Your task to perform on an android device: turn pop-ups off in chrome Image 0: 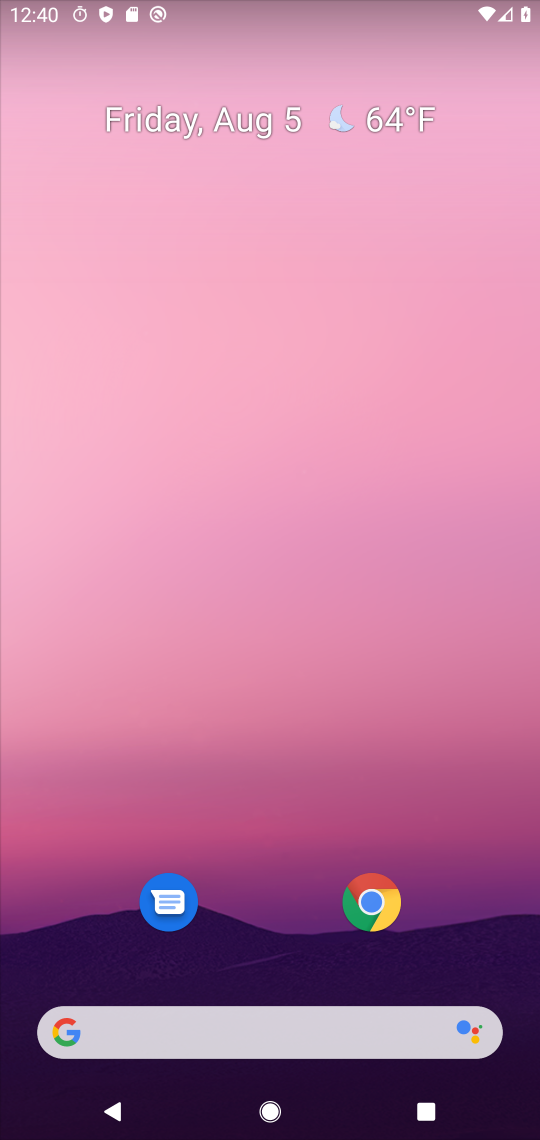
Step 0: drag from (381, 607) to (304, 294)
Your task to perform on an android device: turn pop-ups off in chrome Image 1: 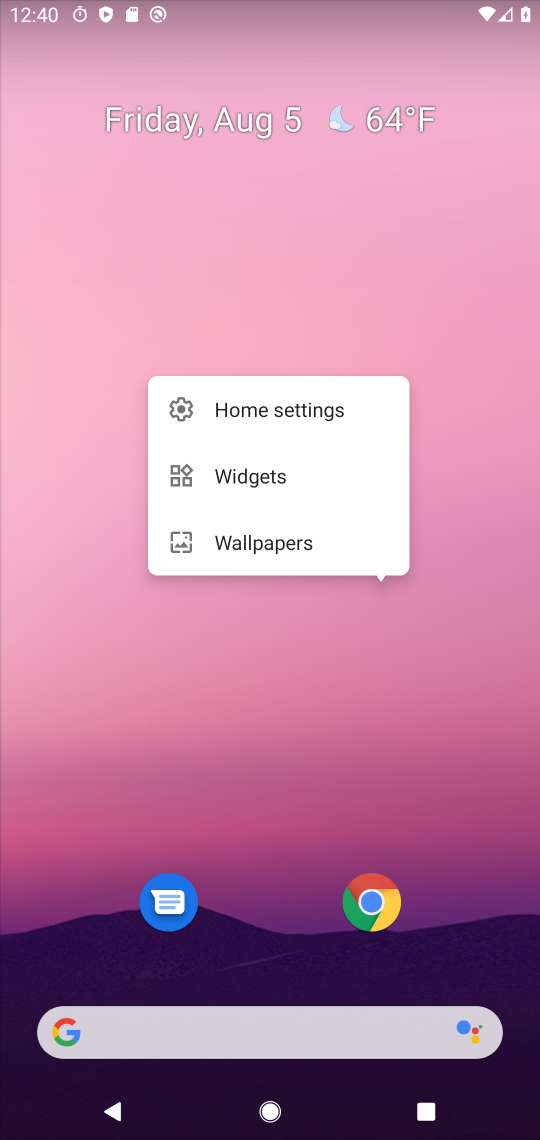
Step 1: click (341, 299)
Your task to perform on an android device: turn pop-ups off in chrome Image 2: 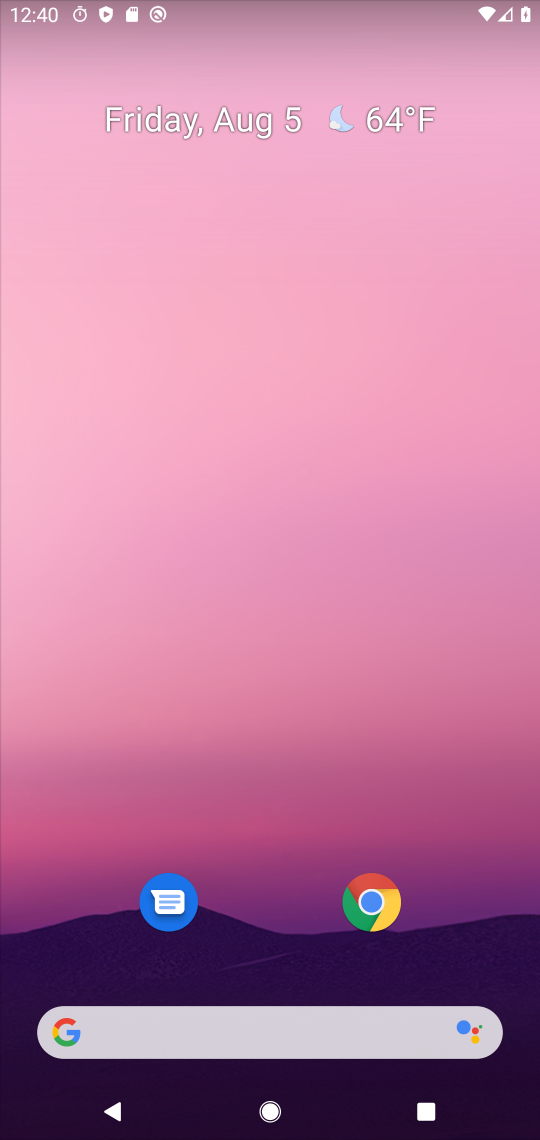
Step 2: drag from (271, 1016) to (293, 219)
Your task to perform on an android device: turn pop-ups off in chrome Image 3: 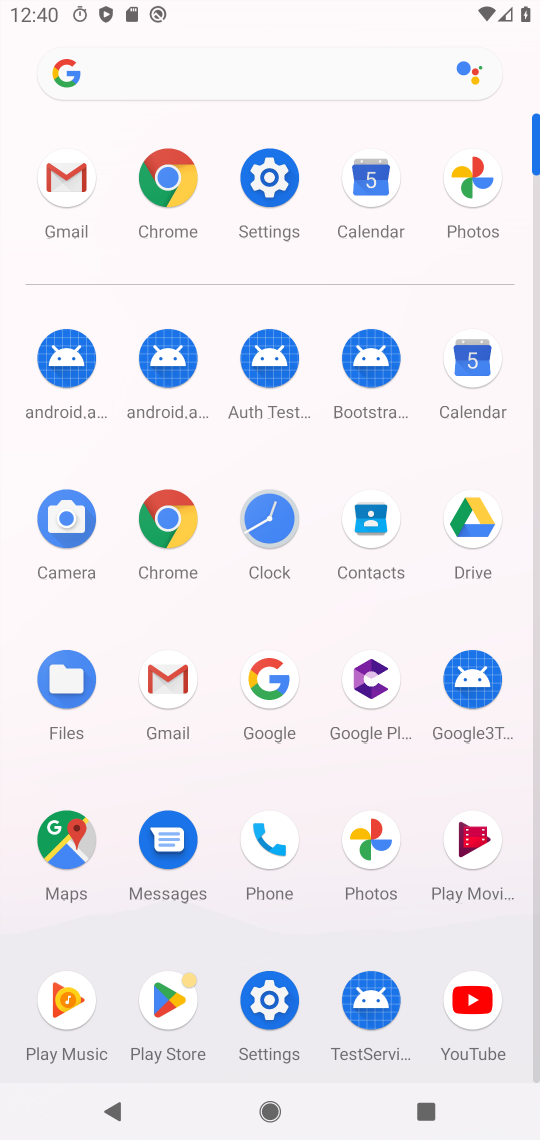
Step 3: click (163, 192)
Your task to perform on an android device: turn pop-ups off in chrome Image 4: 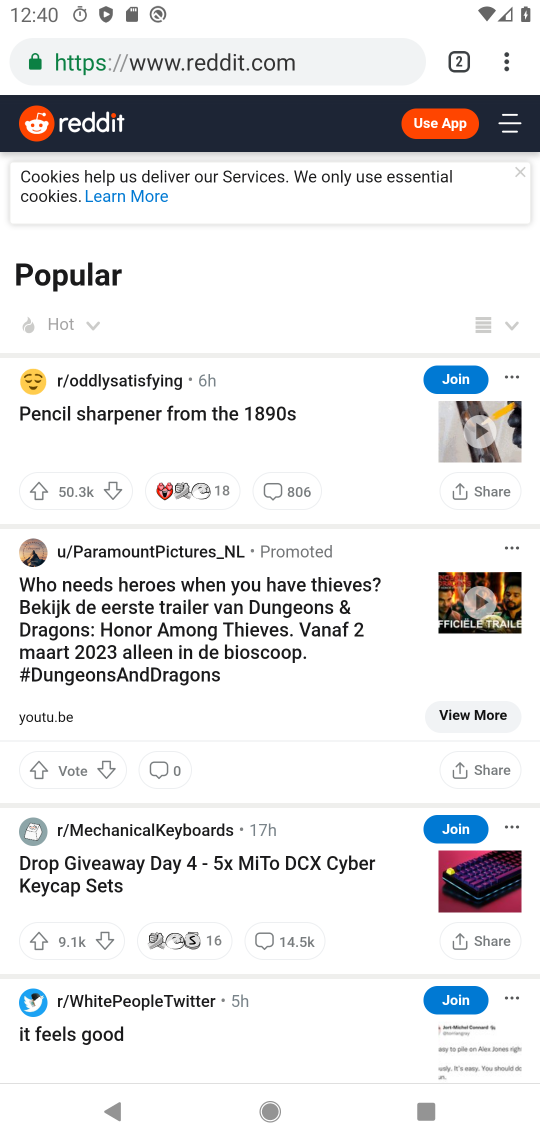
Step 4: click (498, 71)
Your task to perform on an android device: turn pop-ups off in chrome Image 5: 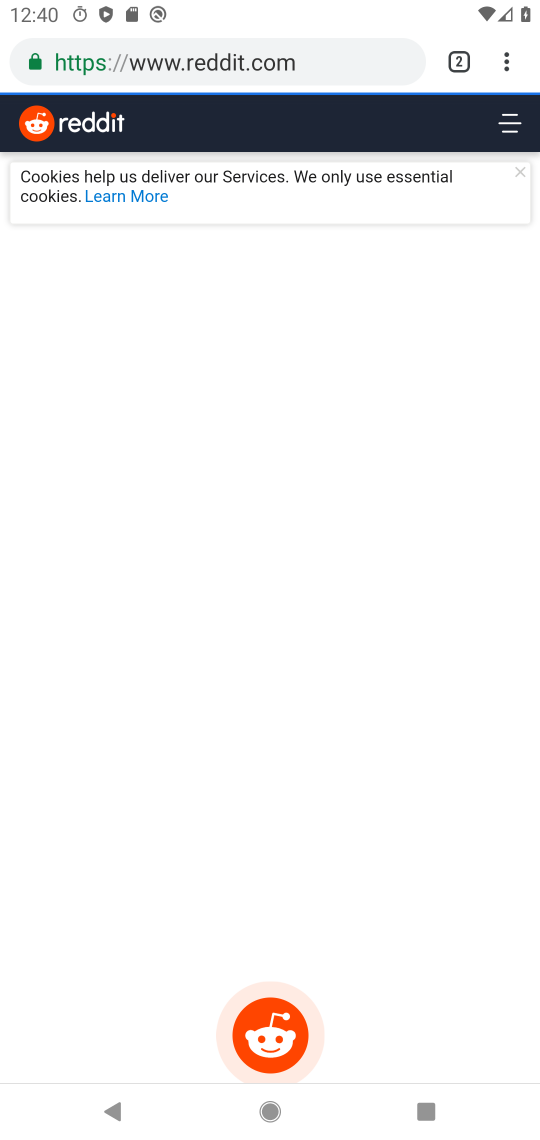
Step 5: click (493, 60)
Your task to perform on an android device: turn pop-ups off in chrome Image 6: 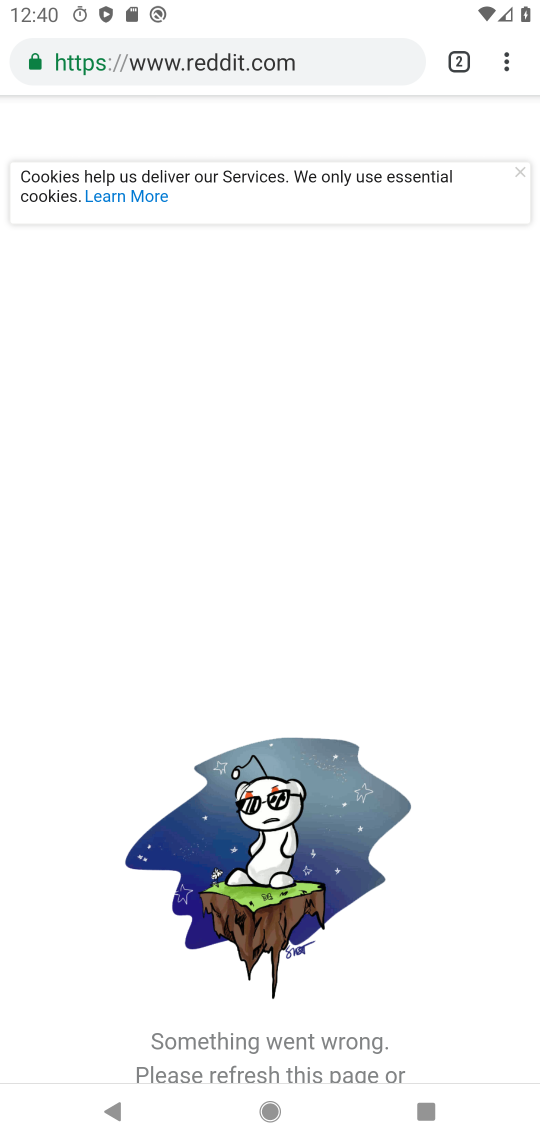
Step 6: click (506, 82)
Your task to perform on an android device: turn pop-ups off in chrome Image 7: 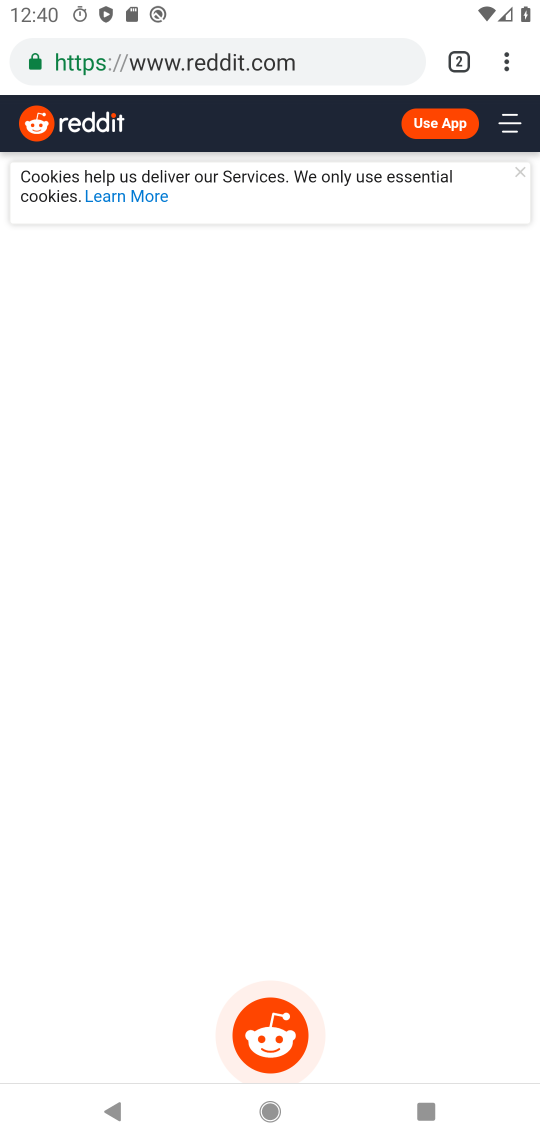
Step 7: click (496, 74)
Your task to perform on an android device: turn pop-ups off in chrome Image 8: 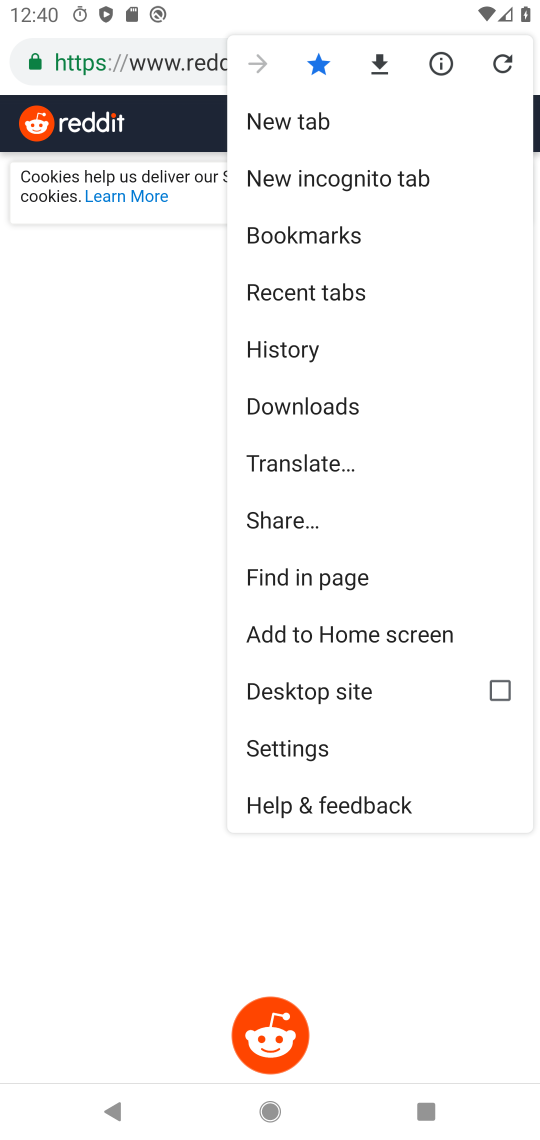
Step 8: click (298, 736)
Your task to perform on an android device: turn pop-ups off in chrome Image 9: 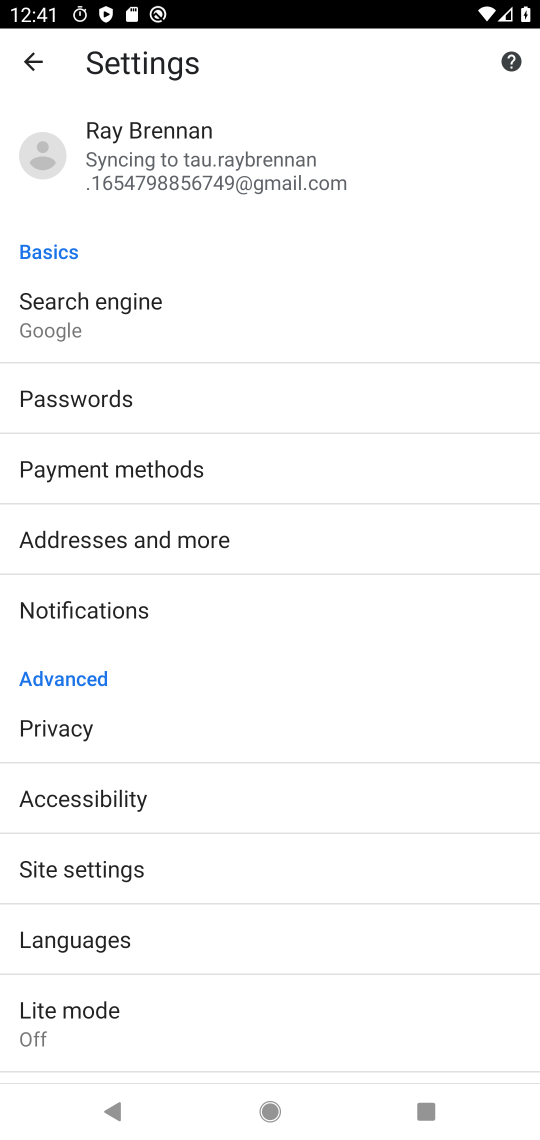
Step 9: click (162, 869)
Your task to perform on an android device: turn pop-ups off in chrome Image 10: 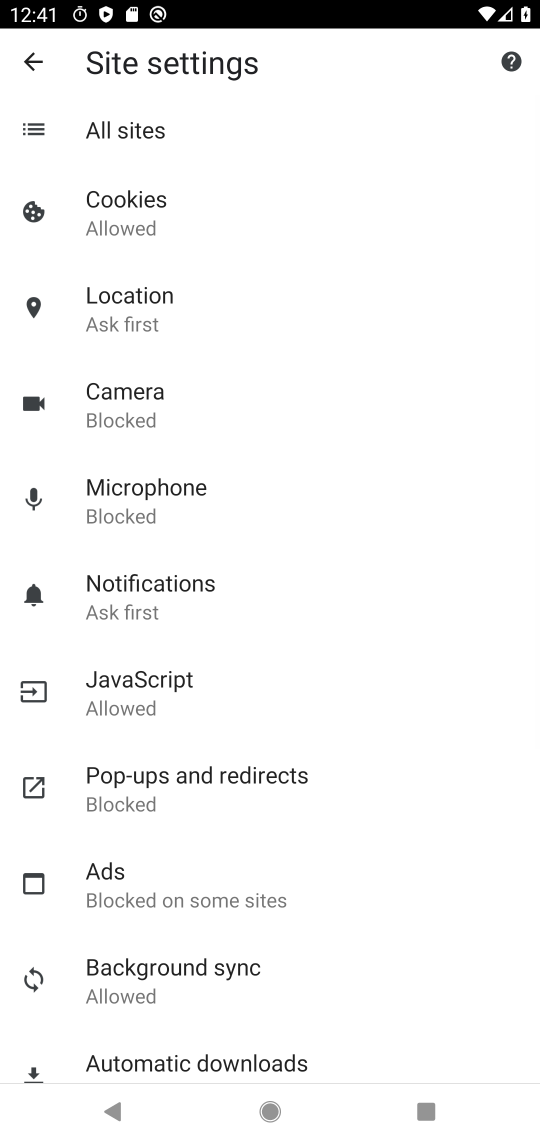
Step 10: click (171, 777)
Your task to perform on an android device: turn pop-ups off in chrome Image 11: 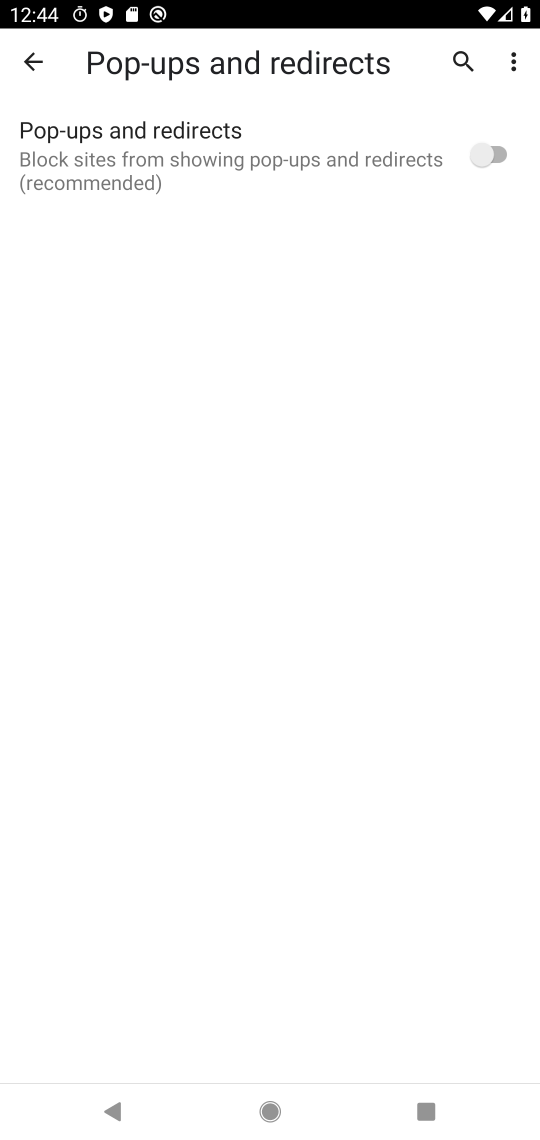
Step 11: task complete